Your task to perform on an android device: Go to battery settings Image 0: 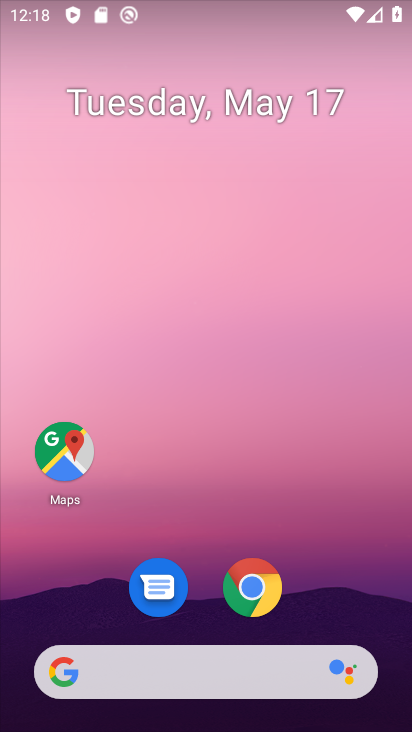
Step 0: drag from (197, 614) to (111, 5)
Your task to perform on an android device: Go to battery settings Image 1: 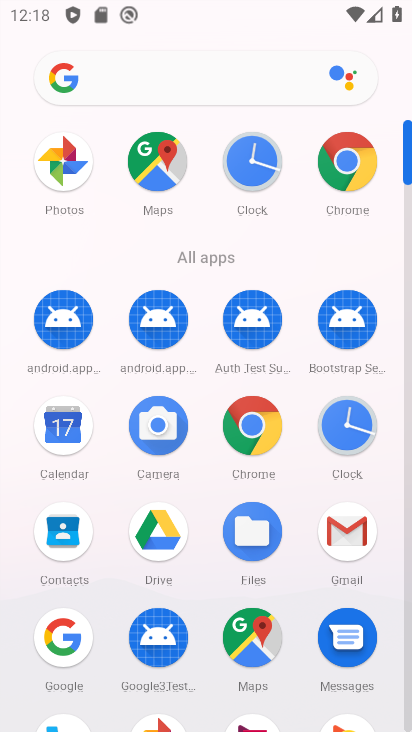
Step 1: drag from (210, 648) to (187, 216)
Your task to perform on an android device: Go to battery settings Image 2: 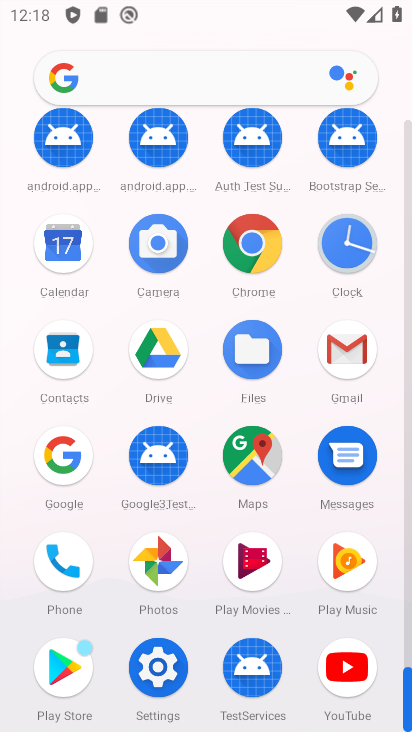
Step 2: click (161, 658)
Your task to perform on an android device: Go to battery settings Image 3: 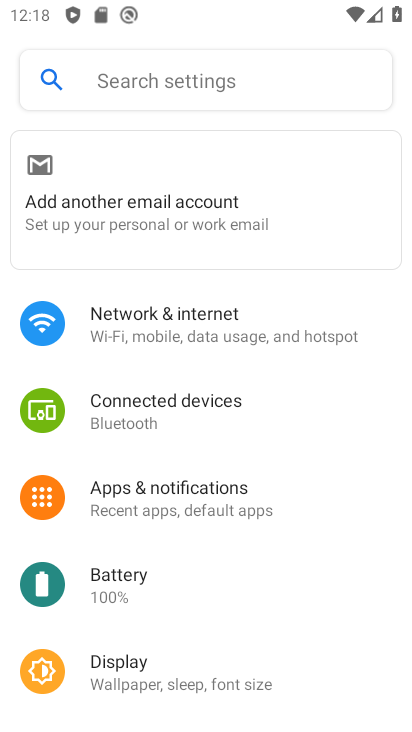
Step 3: click (118, 602)
Your task to perform on an android device: Go to battery settings Image 4: 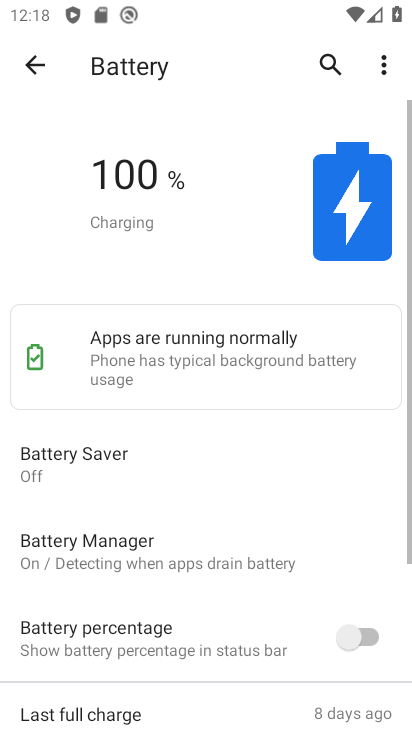
Step 4: task complete